Your task to perform on an android device: Open privacy settings Image 0: 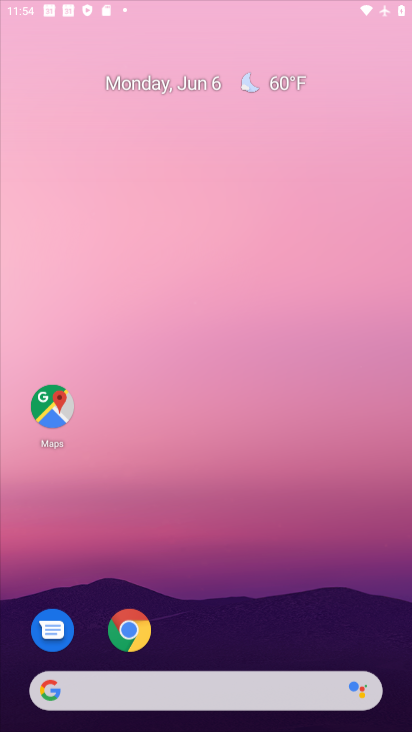
Step 0: drag from (343, 127) to (316, 30)
Your task to perform on an android device: Open privacy settings Image 1: 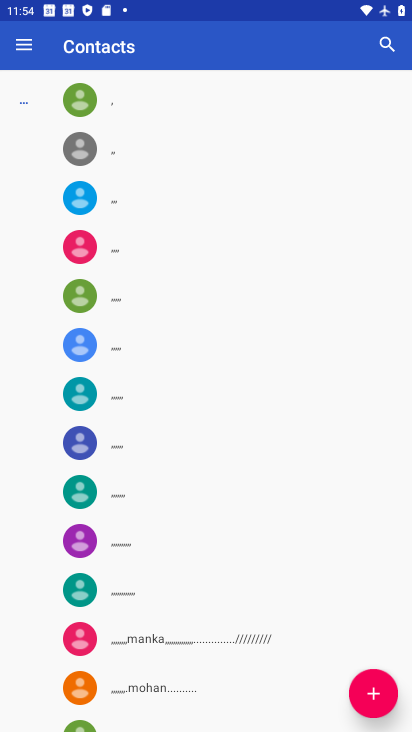
Step 1: press home button
Your task to perform on an android device: Open privacy settings Image 2: 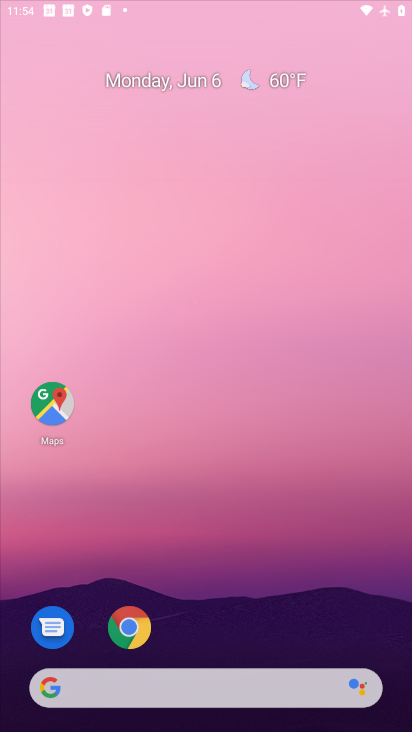
Step 2: drag from (375, 633) to (329, 95)
Your task to perform on an android device: Open privacy settings Image 3: 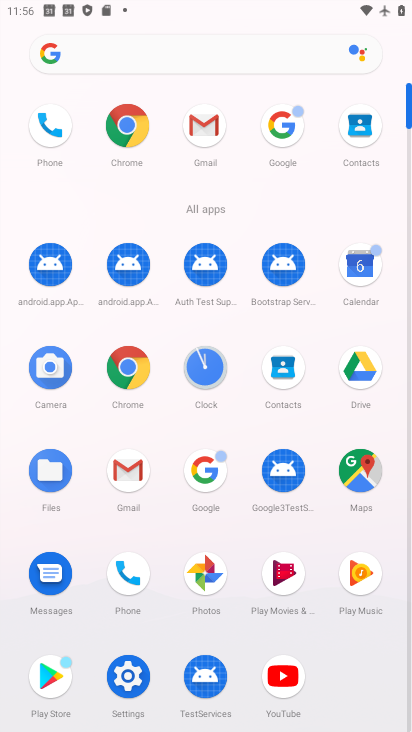
Step 3: click (123, 672)
Your task to perform on an android device: Open privacy settings Image 4: 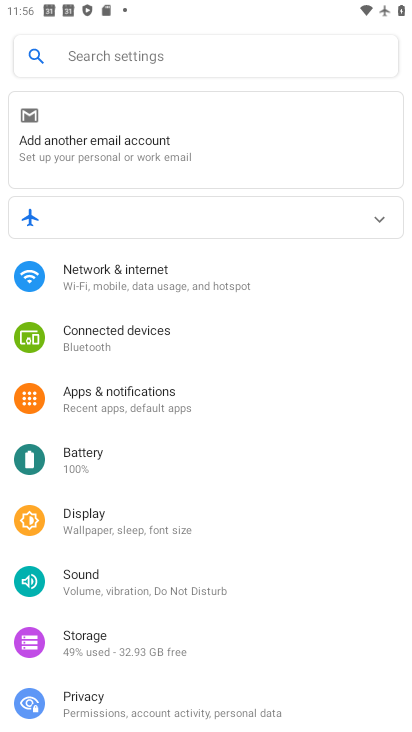
Step 4: click (121, 699)
Your task to perform on an android device: Open privacy settings Image 5: 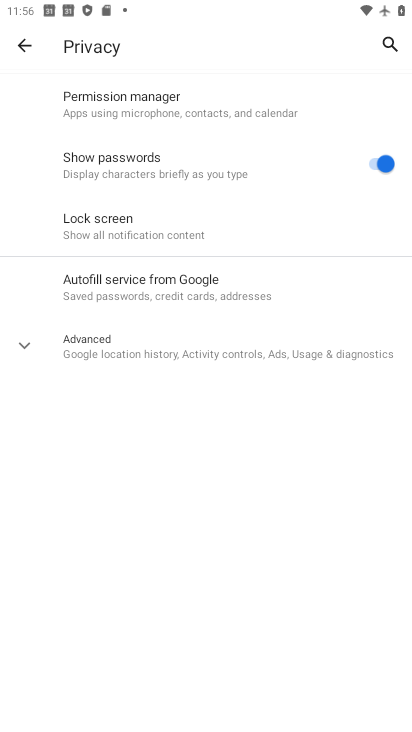
Step 5: task complete